Your task to perform on an android device: Open calendar and show me the first week of next month Image 0: 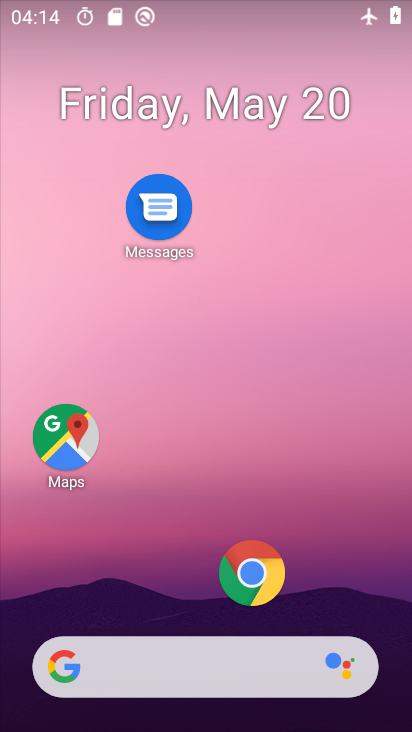
Step 0: drag from (183, 596) to (242, 247)
Your task to perform on an android device: Open calendar and show me the first week of next month Image 1: 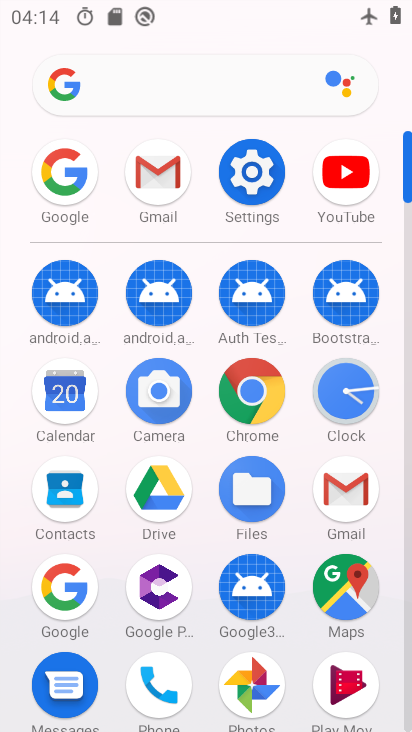
Step 1: click (71, 388)
Your task to perform on an android device: Open calendar and show me the first week of next month Image 2: 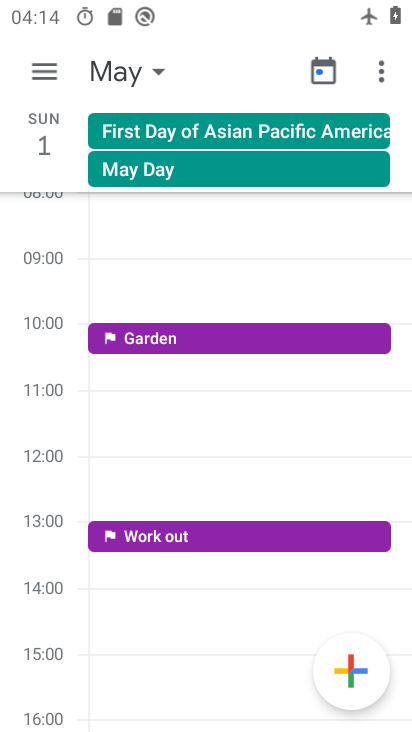
Step 2: click (159, 79)
Your task to perform on an android device: Open calendar and show me the first week of next month Image 3: 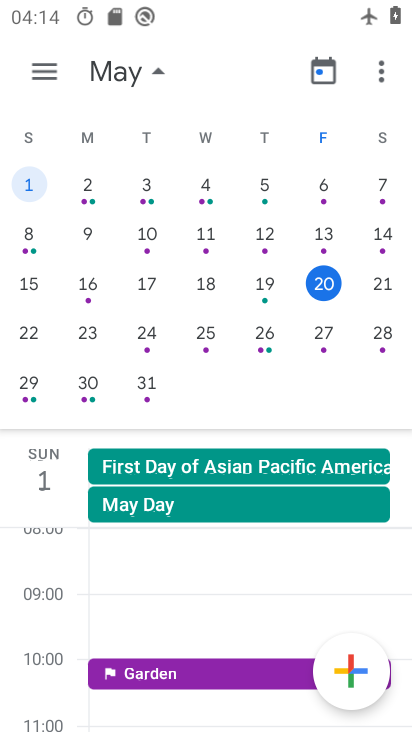
Step 3: drag from (346, 241) to (83, 254)
Your task to perform on an android device: Open calendar and show me the first week of next month Image 4: 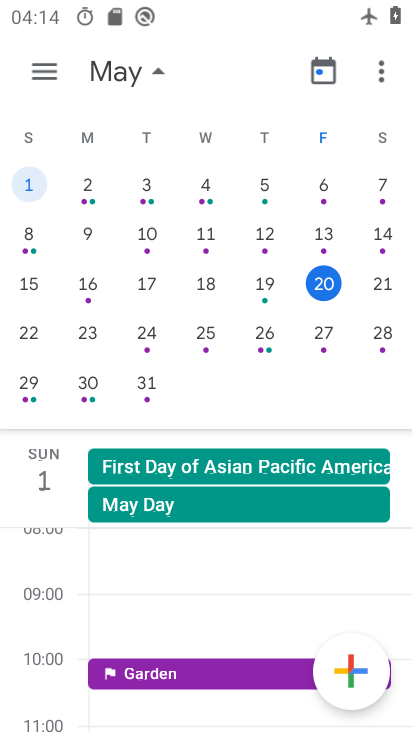
Step 4: click (34, 190)
Your task to perform on an android device: Open calendar and show me the first week of next month Image 5: 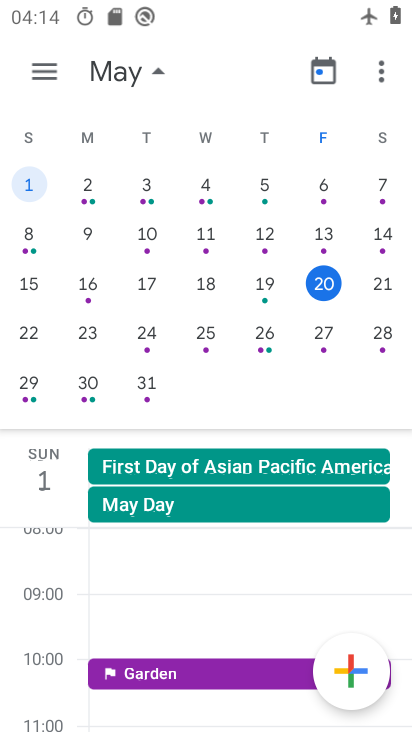
Step 5: drag from (366, 203) to (58, 203)
Your task to perform on an android device: Open calendar and show me the first week of next month Image 6: 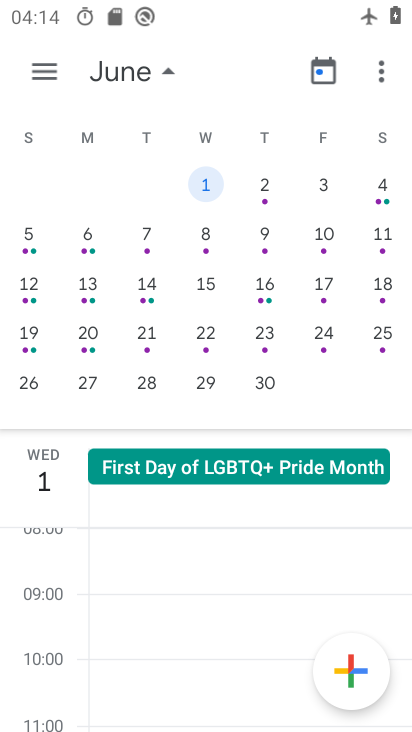
Step 6: click (195, 181)
Your task to perform on an android device: Open calendar and show me the first week of next month Image 7: 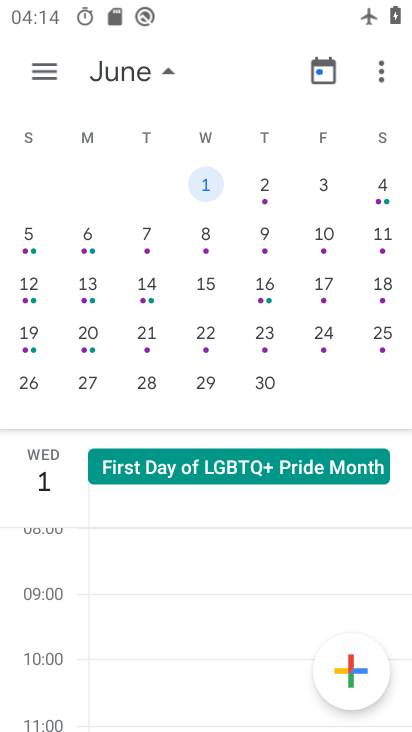
Step 7: task complete